Your task to perform on an android device: Clear the shopping cart on walmart. Search for "logitech g910" on walmart, select the first entry, add it to the cart, then select checkout. Image 0: 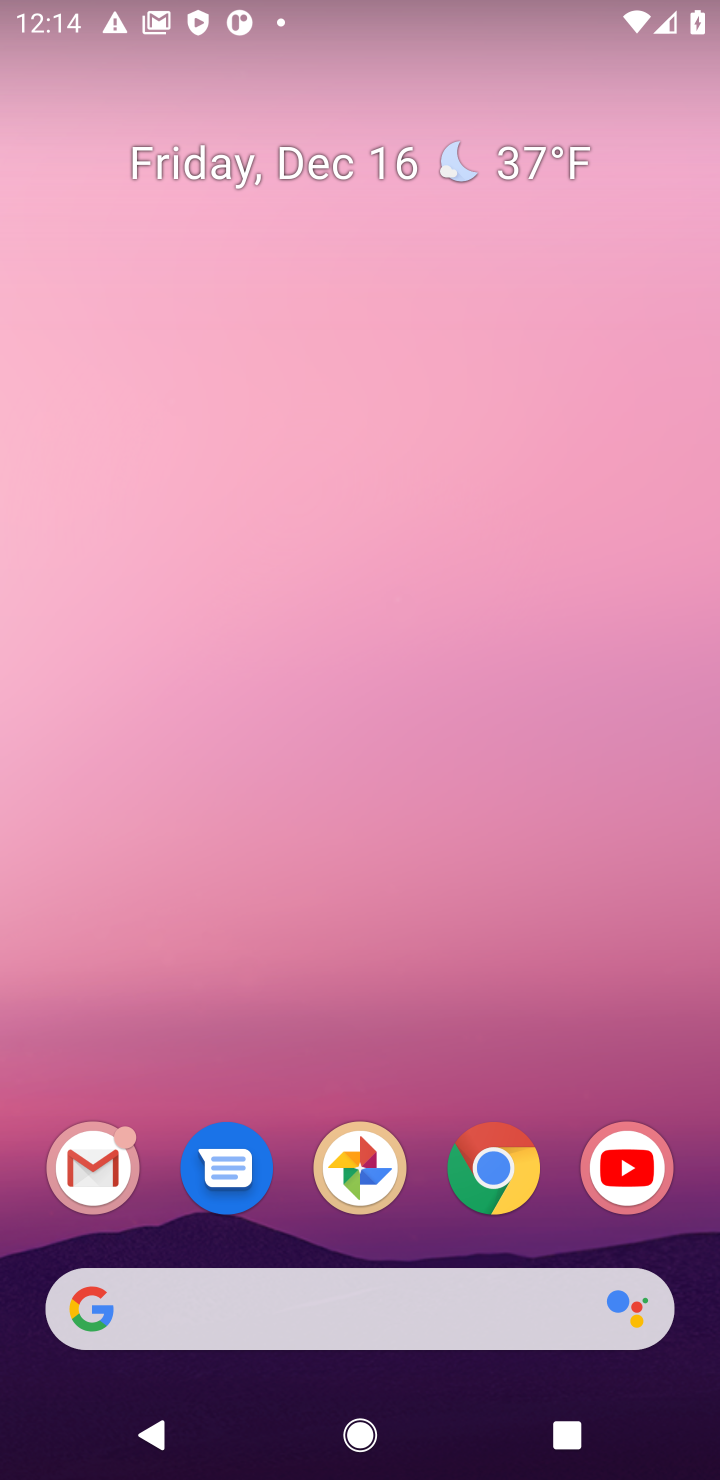
Step 0: task complete